Your task to perform on an android device: turn off javascript in the chrome app Image 0: 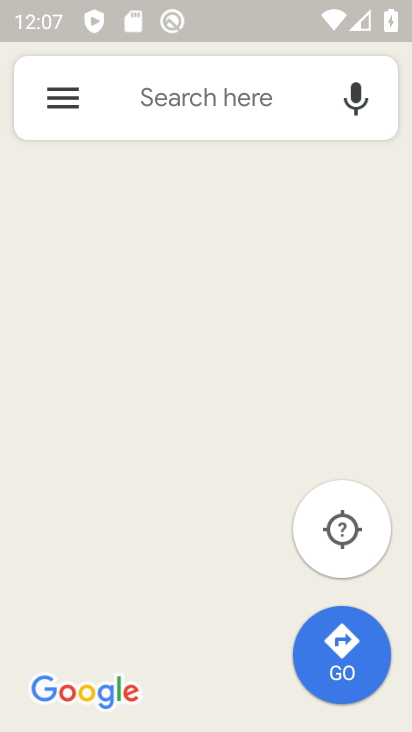
Step 0: drag from (356, 564) to (267, 67)
Your task to perform on an android device: turn off javascript in the chrome app Image 1: 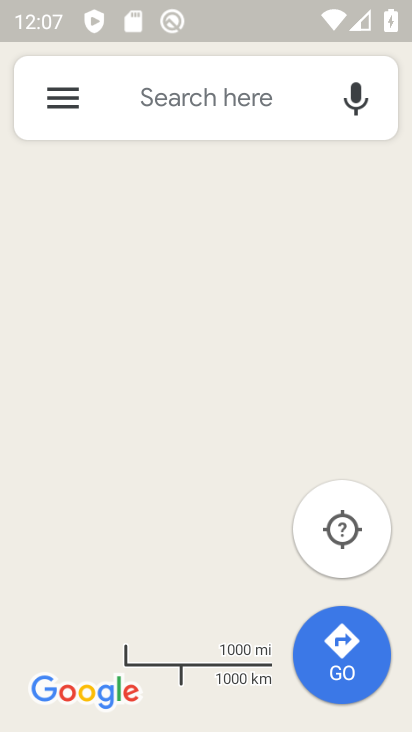
Step 1: press back button
Your task to perform on an android device: turn off javascript in the chrome app Image 2: 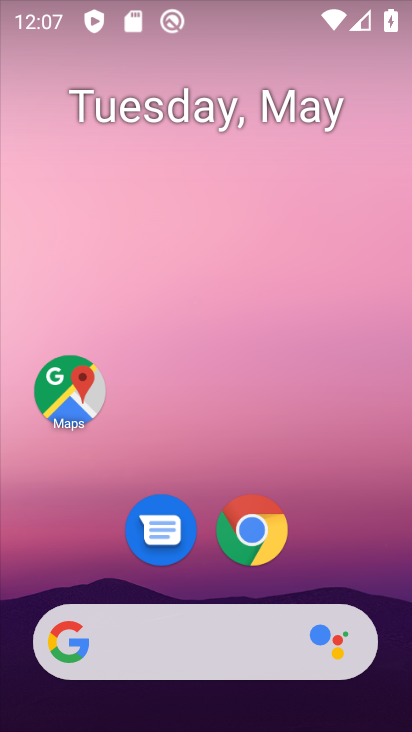
Step 2: drag from (303, 532) to (241, 0)
Your task to perform on an android device: turn off javascript in the chrome app Image 3: 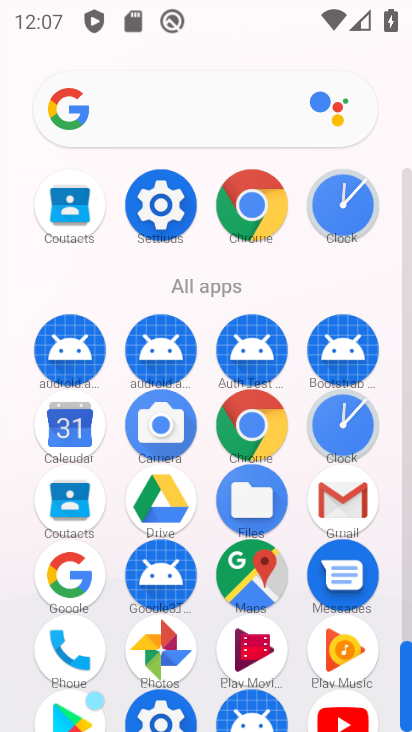
Step 3: drag from (0, 533) to (0, 257)
Your task to perform on an android device: turn off javascript in the chrome app Image 4: 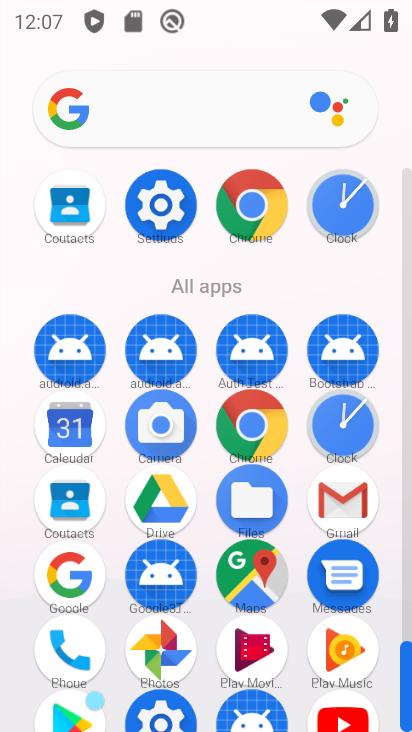
Step 4: click (257, 417)
Your task to perform on an android device: turn off javascript in the chrome app Image 5: 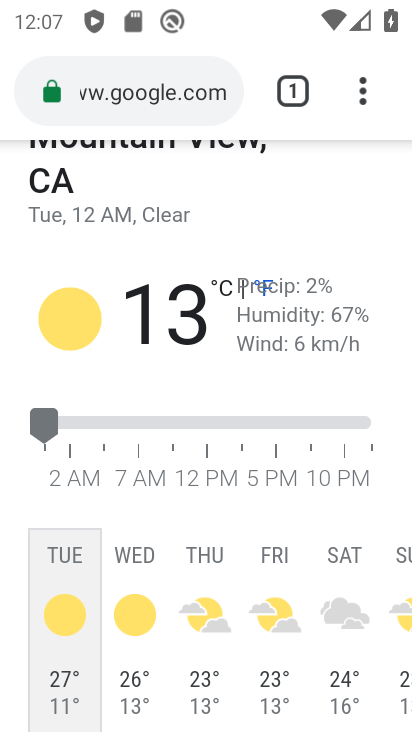
Step 5: drag from (362, 75) to (149, 546)
Your task to perform on an android device: turn off javascript in the chrome app Image 6: 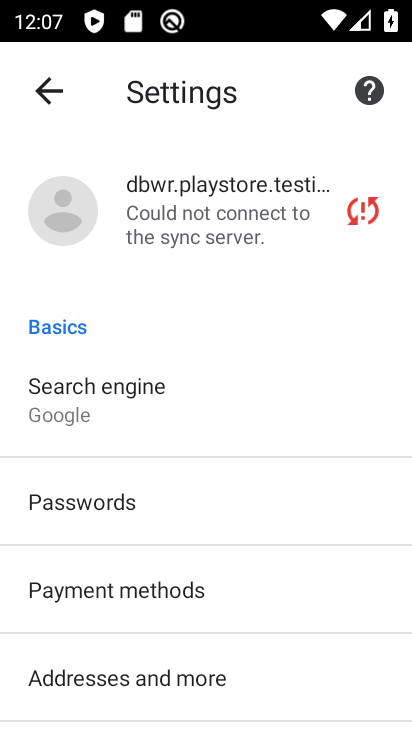
Step 6: drag from (288, 557) to (281, 169)
Your task to perform on an android device: turn off javascript in the chrome app Image 7: 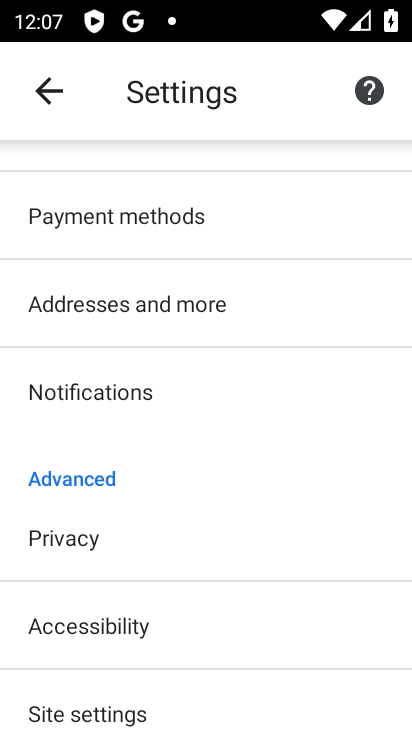
Step 7: drag from (245, 635) to (237, 133)
Your task to perform on an android device: turn off javascript in the chrome app Image 8: 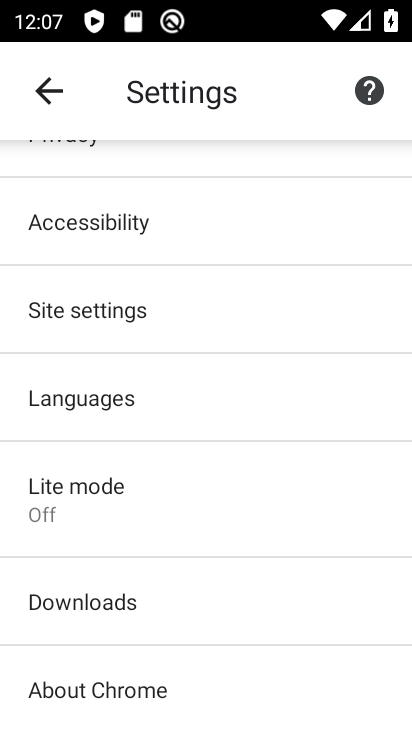
Step 8: click (145, 306)
Your task to perform on an android device: turn off javascript in the chrome app Image 9: 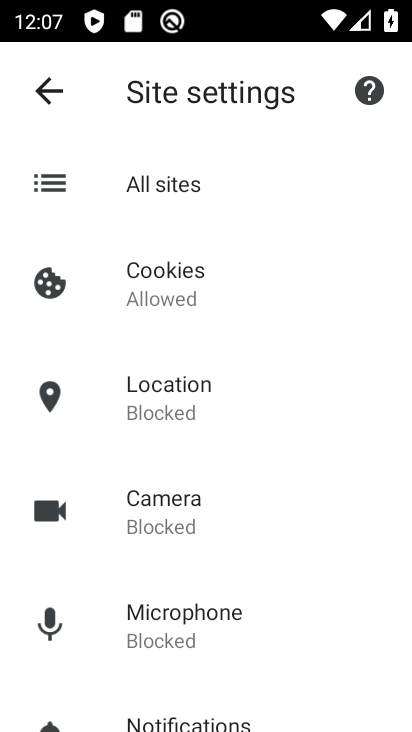
Step 9: drag from (256, 658) to (256, 185)
Your task to perform on an android device: turn off javascript in the chrome app Image 10: 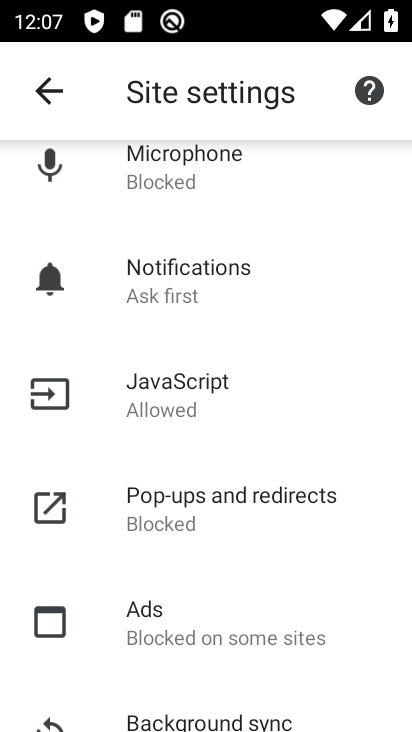
Step 10: click (207, 397)
Your task to perform on an android device: turn off javascript in the chrome app Image 11: 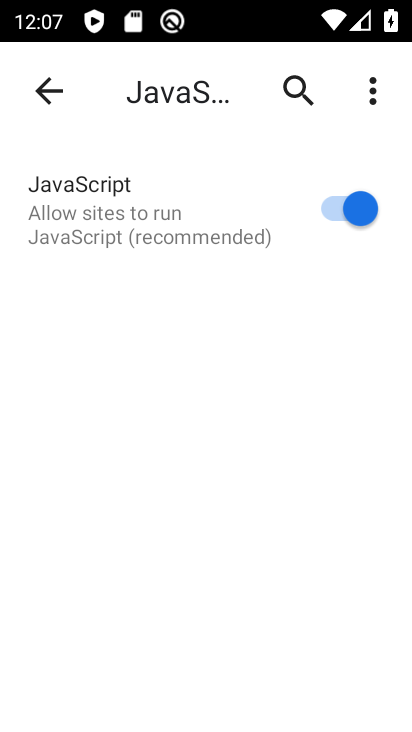
Step 11: click (328, 206)
Your task to perform on an android device: turn off javascript in the chrome app Image 12: 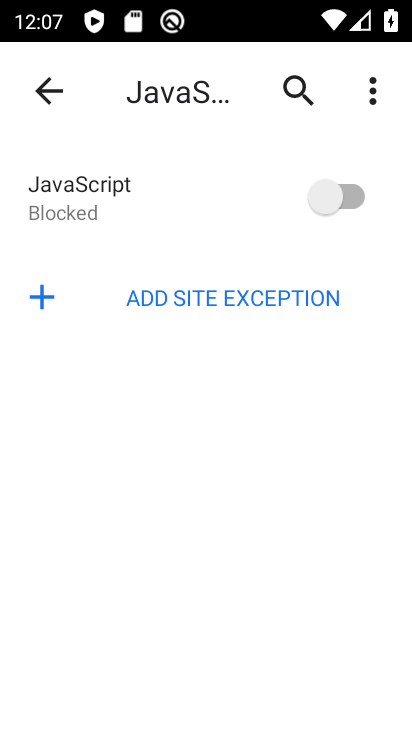
Step 12: task complete